Your task to perform on an android device: Check the weather Image 0: 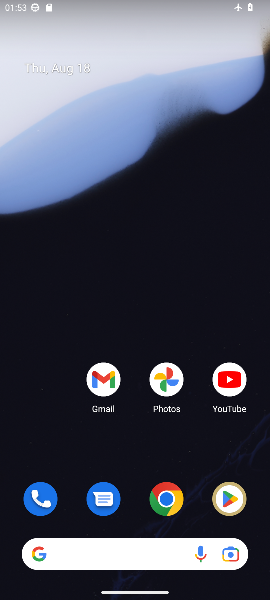
Step 0: drag from (138, 519) to (162, 82)
Your task to perform on an android device: Check the weather Image 1: 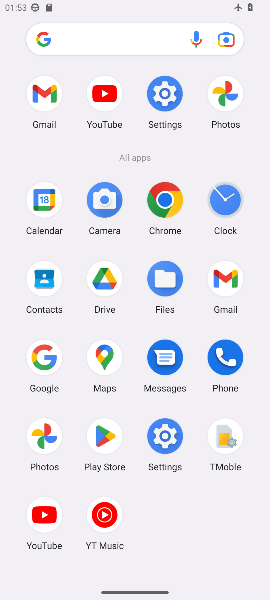
Step 1: click (43, 357)
Your task to perform on an android device: Check the weather Image 2: 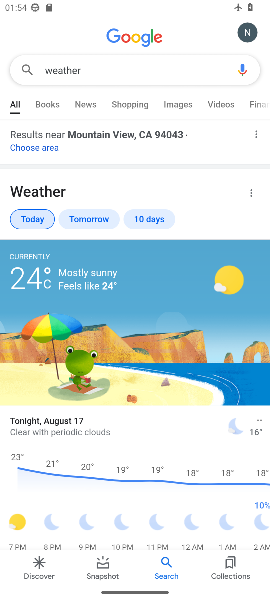
Step 2: task complete